Your task to perform on an android device: Go to internet settings Image 0: 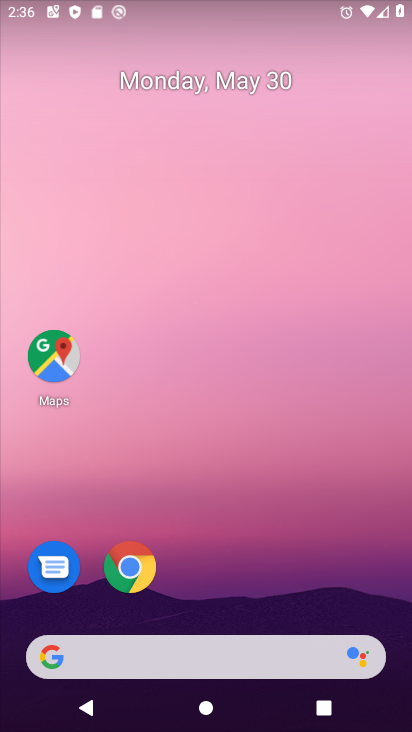
Step 0: drag from (222, 602) to (277, 1)
Your task to perform on an android device: Go to internet settings Image 1: 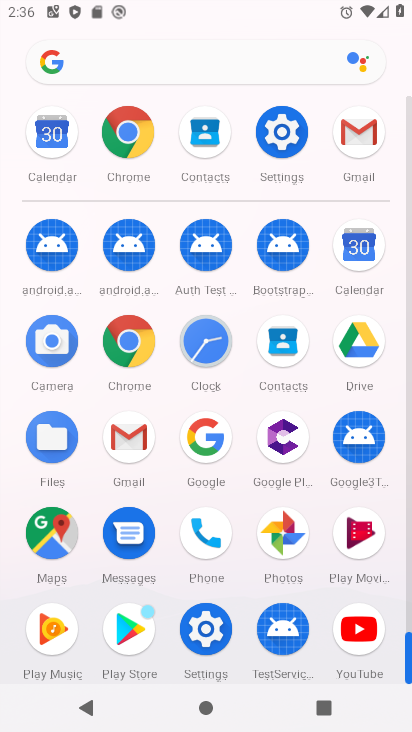
Step 1: click (293, 129)
Your task to perform on an android device: Go to internet settings Image 2: 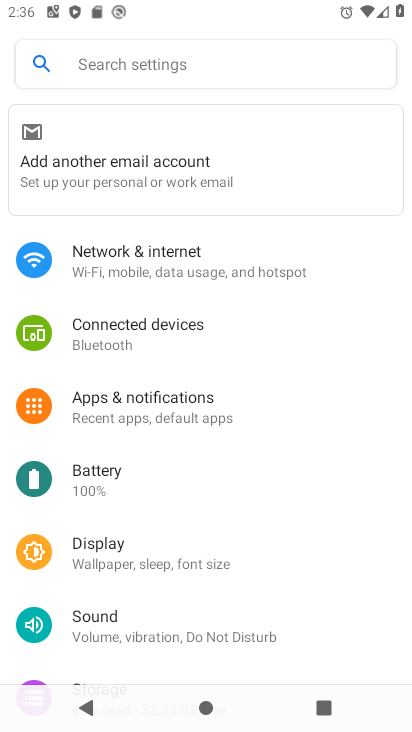
Step 2: click (185, 263)
Your task to perform on an android device: Go to internet settings Image 3: 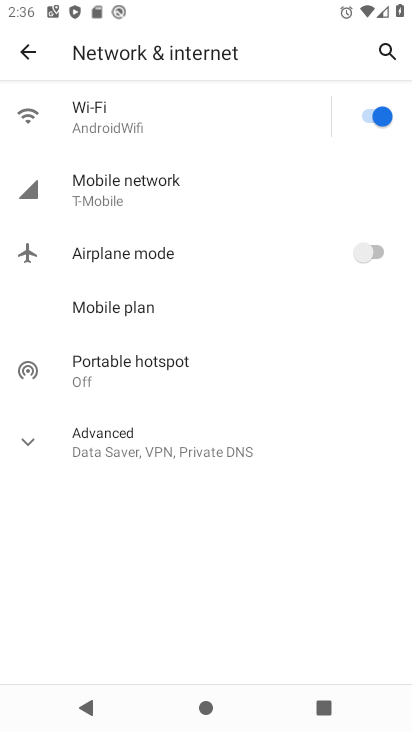
Step 3: task complete